Your task to perform on an android device: Open the calendar and show me this week's events? Image 0: 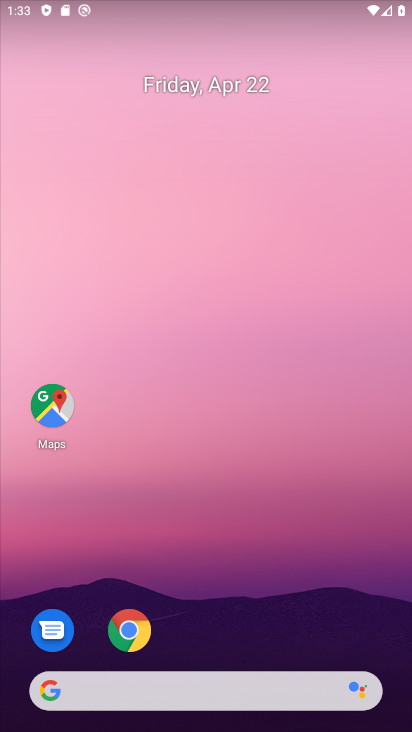
Step 0: drag from (236, 557) to (265, 172)
Your task to perform on an android device: Open the calendar and show me this week's events? Image 1: 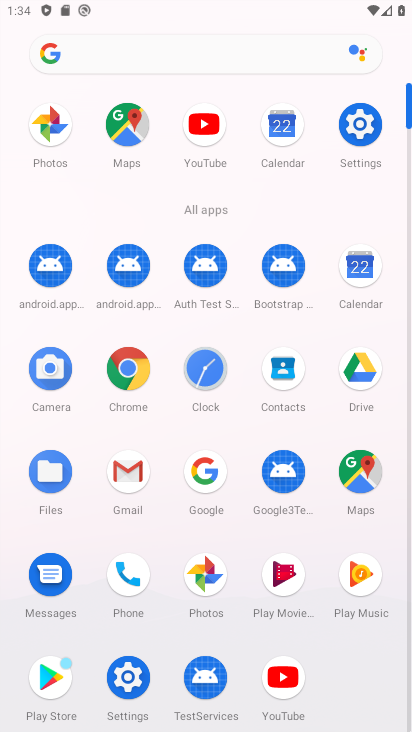
Step 1: click (287, 135)
Your task to perform on an android device: Open the calendar and show me this week's events? Image 2: 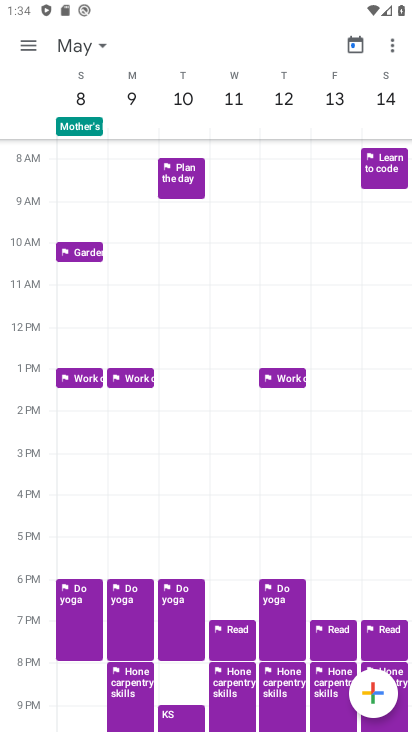
Step 2: click (99, 44)
Your task to perform on an android device: Open the calendar and show me this week's events? Image 3: 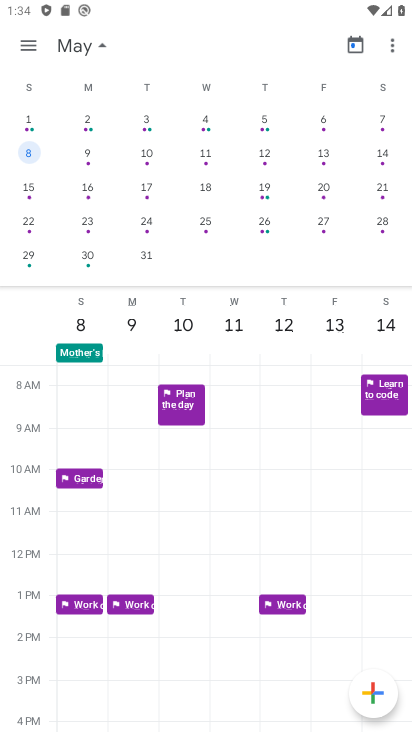
Step 3: drag from (119, 165) to (401, 389)
Your task to perform on an android device: Open the calendar and show me this week's events? Image 4: 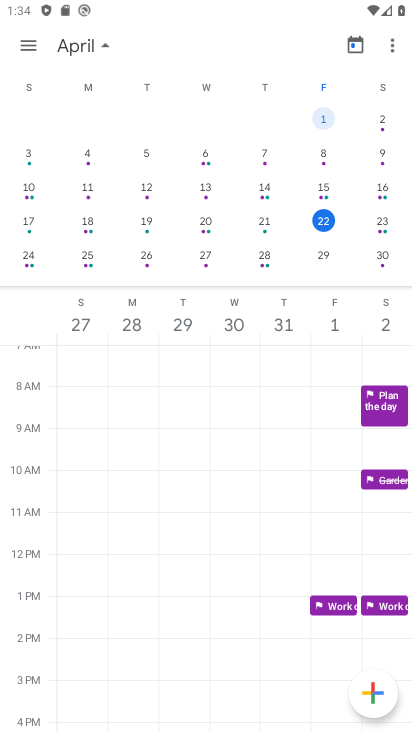
Step 4: click (31, 51)
Your task to perform on an android device: Open the calendar and show me this week's events? Image 5: 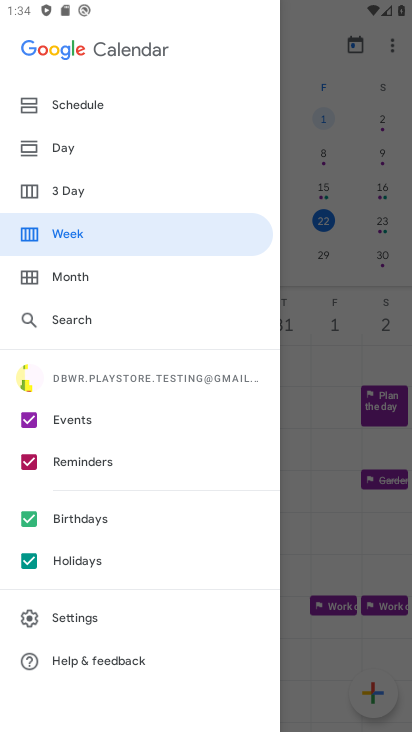
Step 5: click (25, 465)
Your task to perform on an android device: Open the calendar and show me this week's events? Image 6: 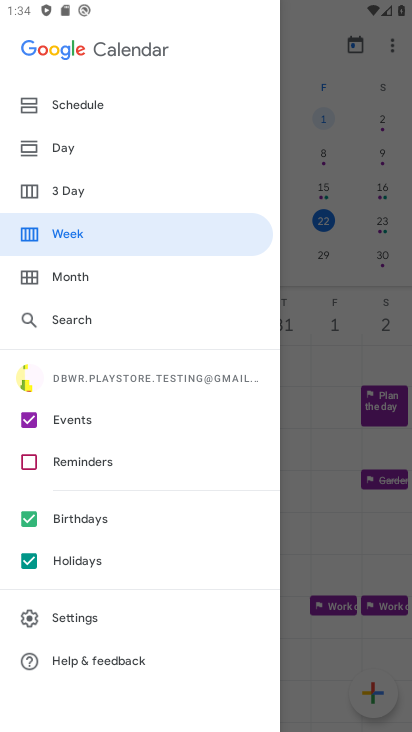
Step 6: click (24, 521)
Your task to perform on an android device: Open the calendar and show me this week's events? Image 7: 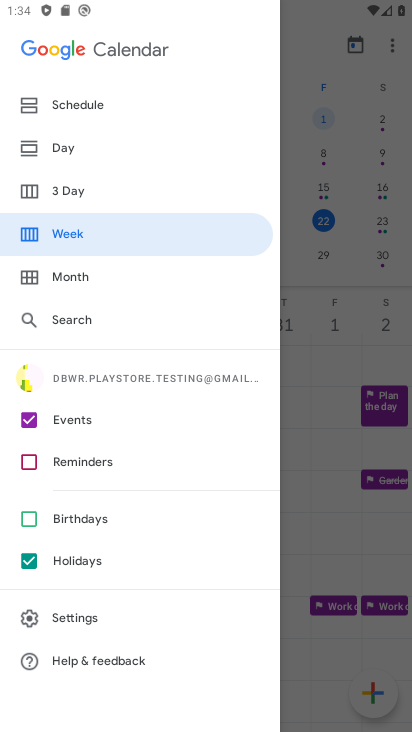
Step 7: click (22, 564)
Your task to perform on an android device: Open the calendar and show me this week's events? Image 8: 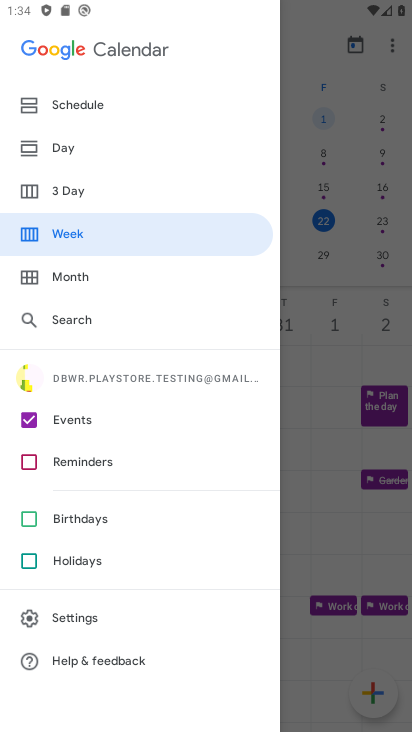
Step 8: click (317, 481)
Your task to perform on an android device: Open the calendar and show me this week's events? Image 9: 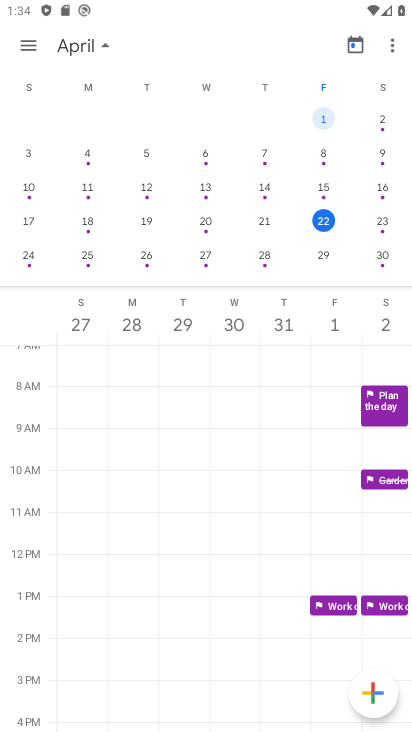
Step 9: task complete